Your task to perform on an android device: Search for seafood restaurants on Google Maps Image 0: 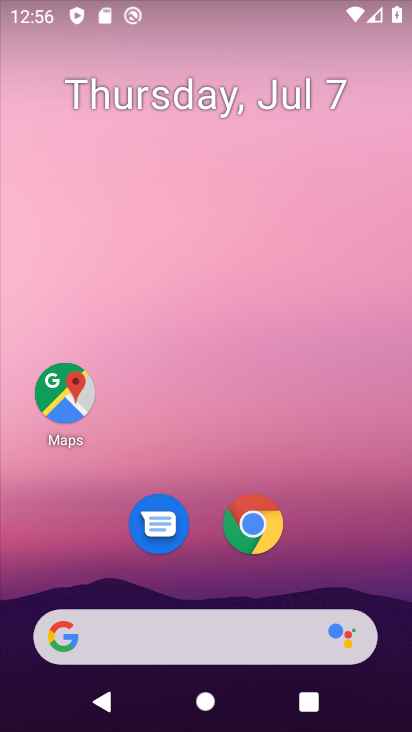
Step 0: click (48, 391)
Your task to perform on an android device: Search for seafood restaurants on Google Maps Image 1: 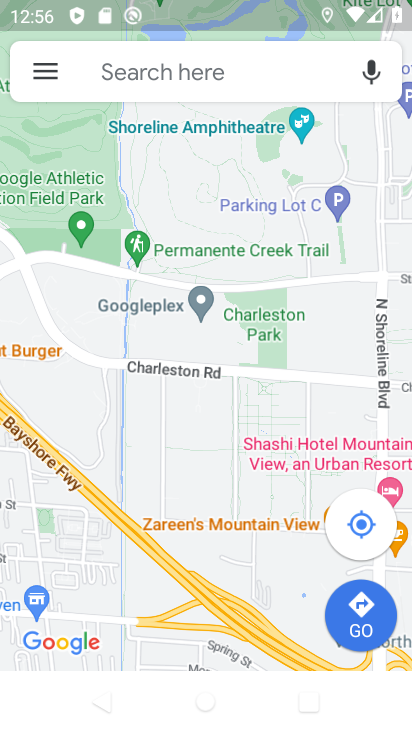
Step 1: click (183, 71)
Your task to perform on an android device: Search for seafood restaurants on Google Maps Image 2: 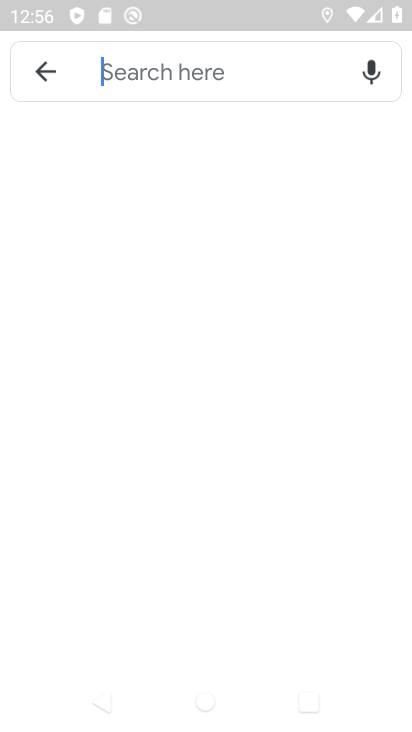
Step 2: click (183, 71)
Your task to perform on an android device: Search for seafood restaurants on Google Maps Image 3: 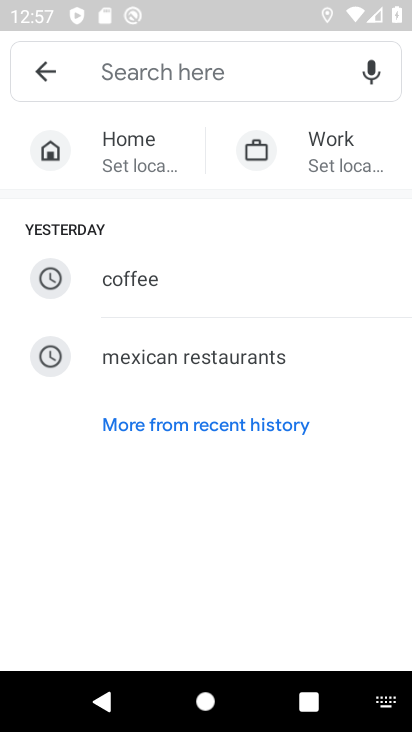
Step 3: type "sea food restaurants"
Your task to perform on an android device: Search for seafood restaurants on Google Maps Image 4: 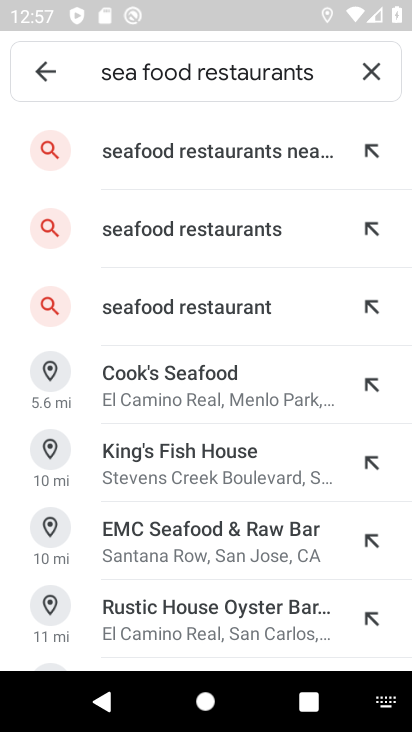
Step 4: click (214, 225)
Your task to perform on an android device: Search for seafood restaurants on Google Maps Image 5: 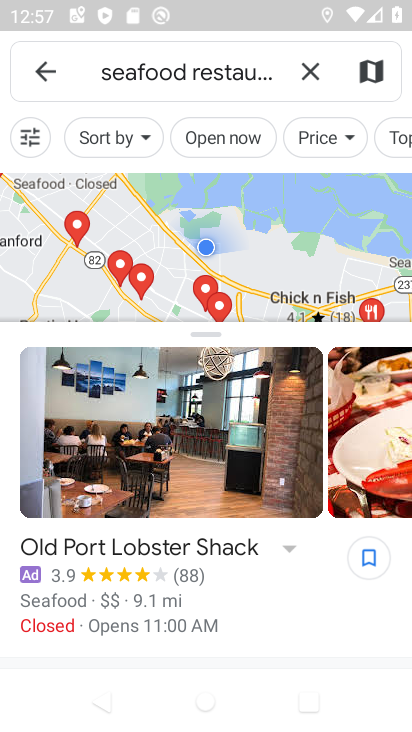
Step 5: task complete